Your task to perform on an android device: read, delete, or share a saved page in the chrome app Image 0: 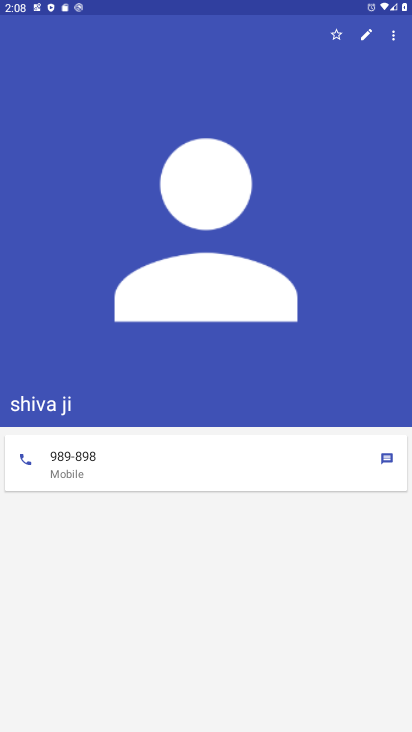
Step 0: press home button
Your task to perform on an android device: read, delete, or share a saved page in the chrome app Image 1: 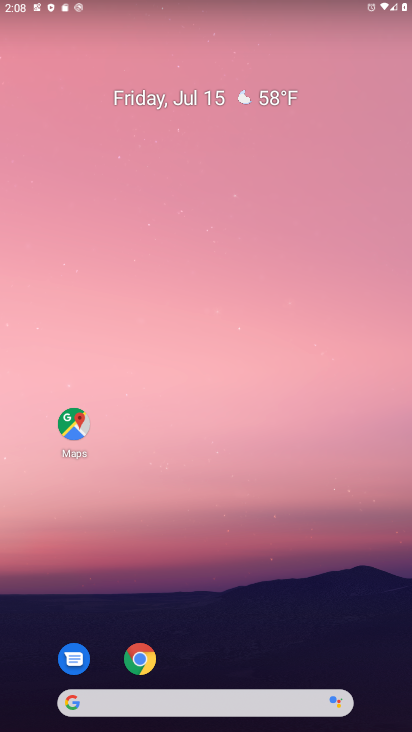
Step 1: click (140, 655)
Your task to perform on an android device: read, delete, or share a saved page in the chrome app Image 2: 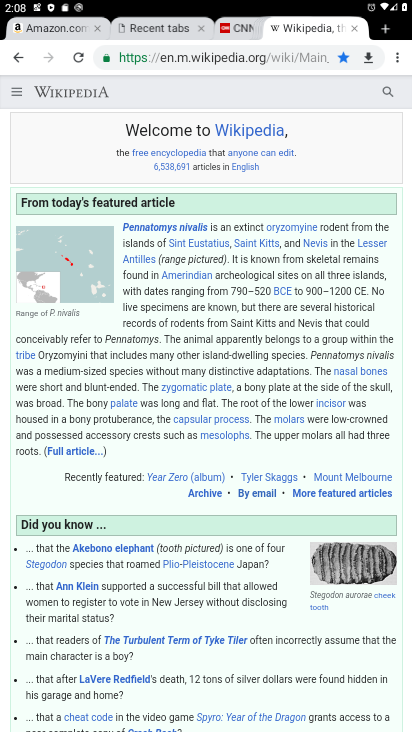
Step 2: click (397, 55)
Your task to perform on an android device: read, delete, or share a saved page in the chrome app Image 3: 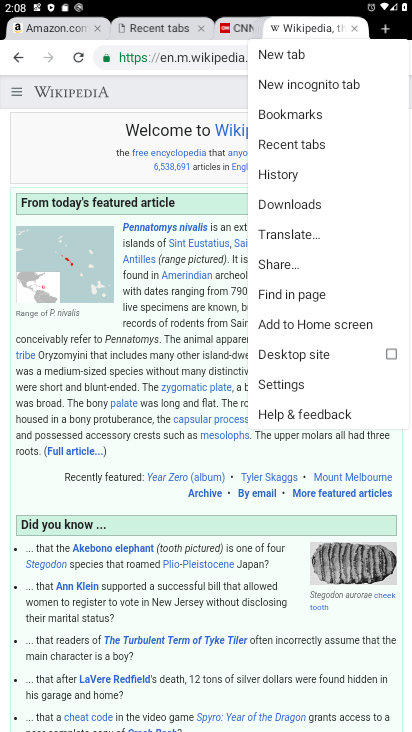
Step 3: click (298, 205)
Your task to perform on an android device: read, delete, or share a saved page in the chrome app Image 4: 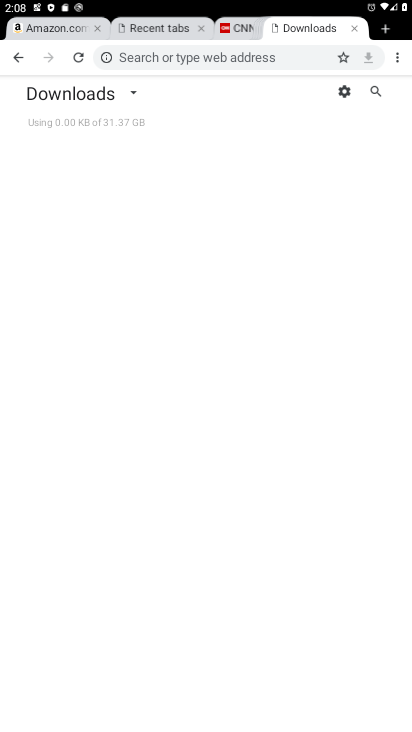
Step 4: task complete